Your task to perform on an android device: When is my next appointment? Image 0: 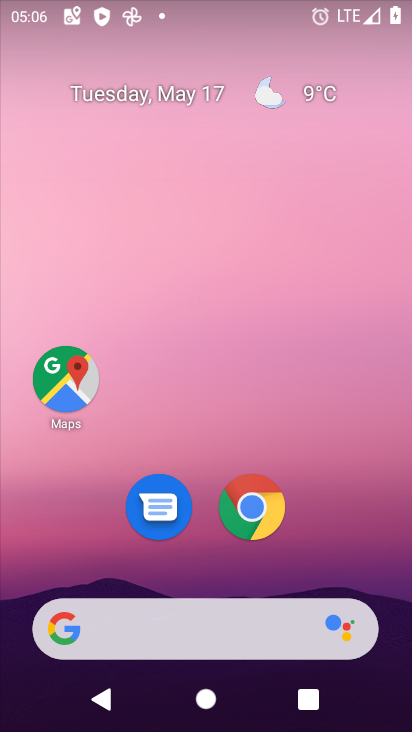
Step 0: drag from (340, 515) to (232, 12)
Your task to perform on an android device: When is my next appointment? Image 1: 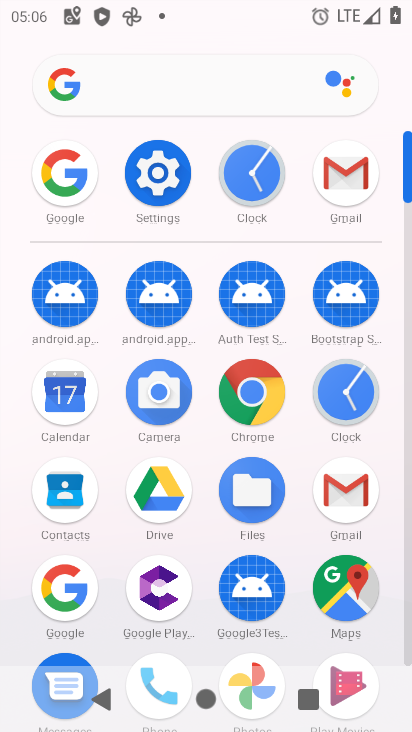
Step 1: click (61, 398)
Your task to perform on an android device: When is my next appointment? Image 2: 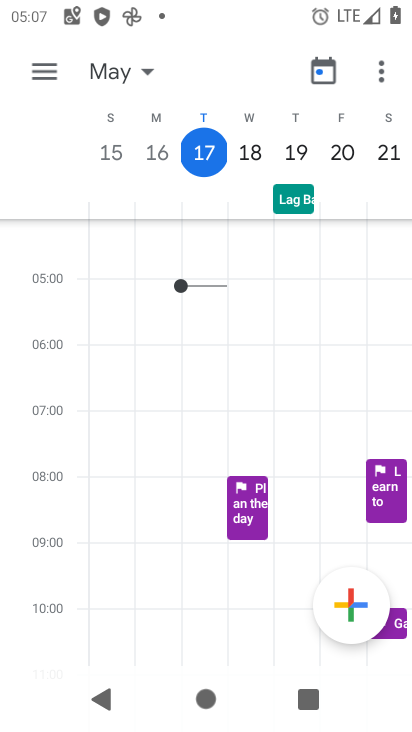
Step 2: task complete